Your task to perform on an android device: toggle translation in the chrome app Image 0: 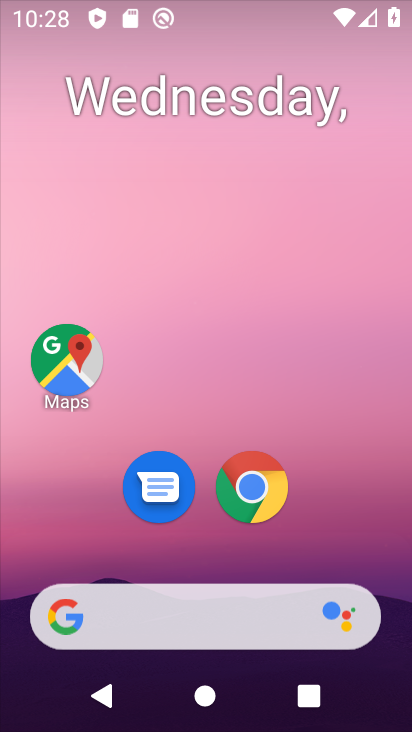
Step 0: click (255, 497)
Your task to perform on an android device: toggle translation in the chrome app Image 1: 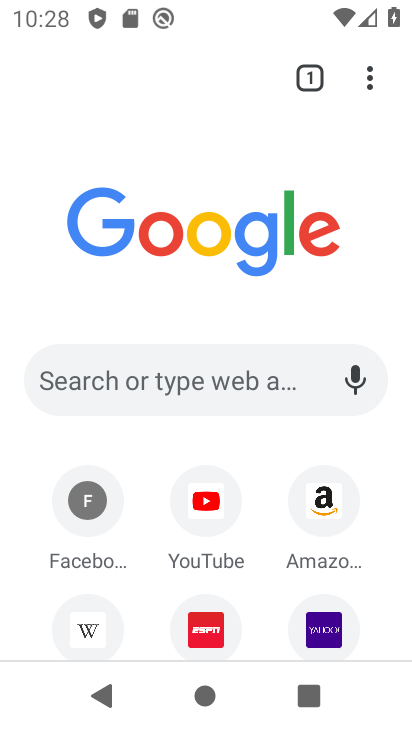
Step 1: drag from (363, 83) to (152, 564)
Your task to perform on an android device: toggle translation in the chrome app Image 2: 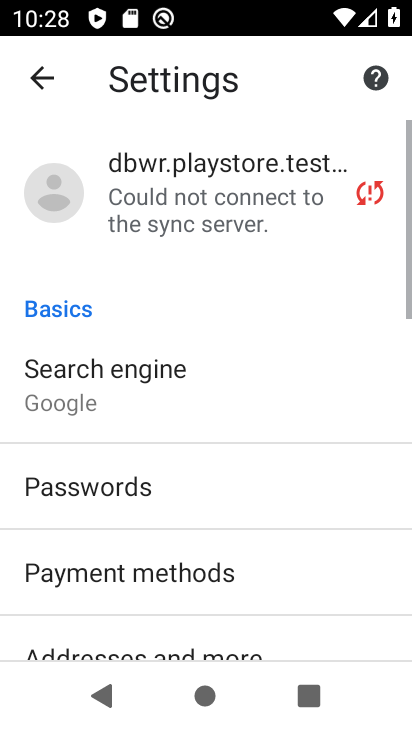
Step 2: drag from (172, 535) to (238, 155)
Your task to perform on an android device: toggle translation in the chrome app Image 3: 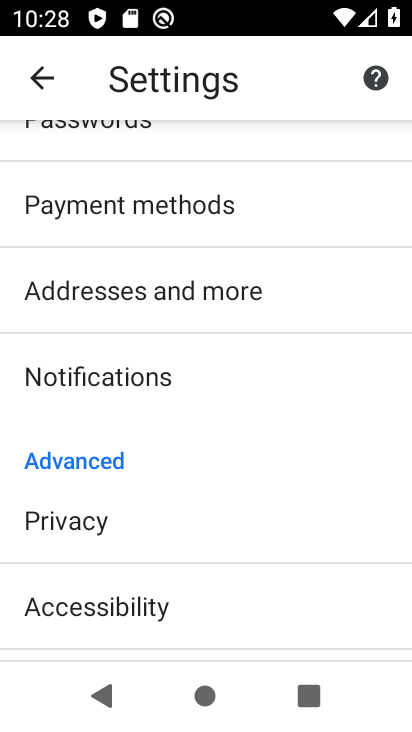
Step 3: drag from (194, 453) to (226, 238)
Your task to perform on an android device: toggle translation in the chrome app Image 4: 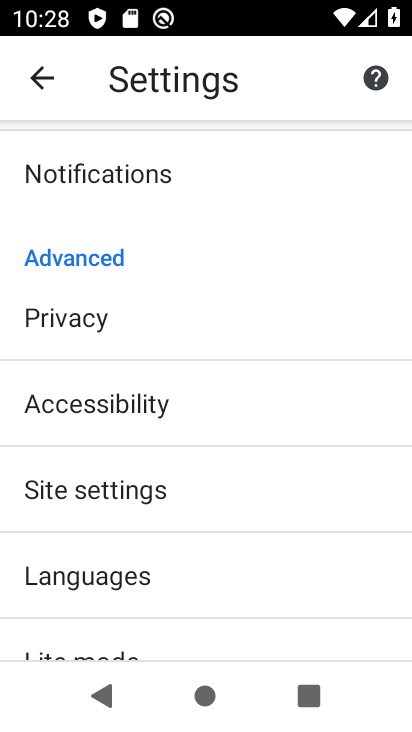
Step 4: drag from (165, 636) to (223, 384)
Your task to perform on an android device: toggle translation in the chrome app Image 5: 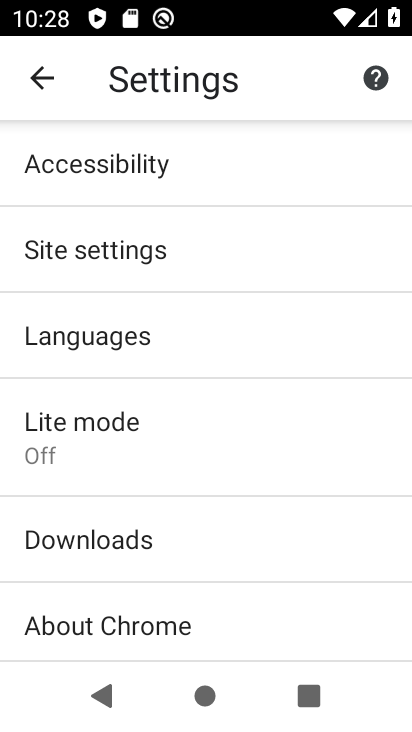
Step 5: click (154, 350)
Your task to perform on an android device: toggle translation in the chrome app Image 6: 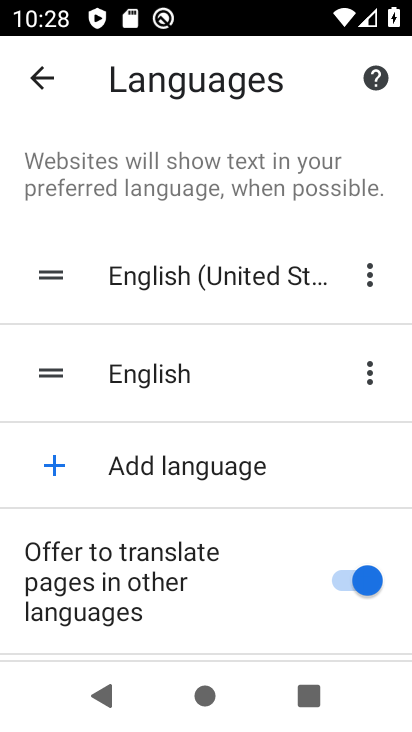
Step 6: click (345, 581)
Your task to perform on an android device: toggle translation in the chrome app Image 7: 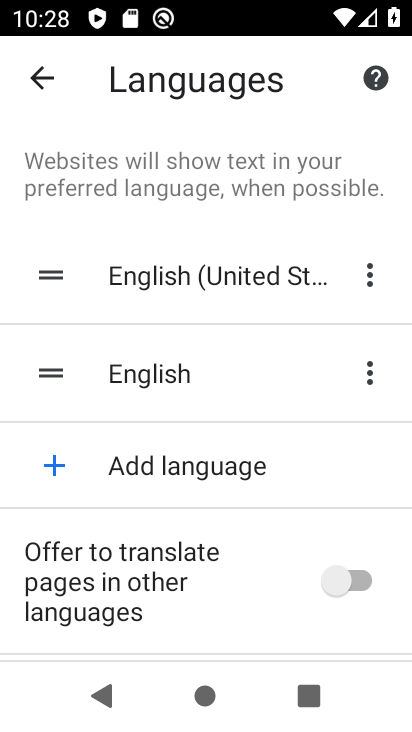
Step 7: task complete